Your task to perform on an android device: Show the shopping cart on walmart.com. Add panasonic triple a to the cart on walmart.com, then select checkout. Image 0: 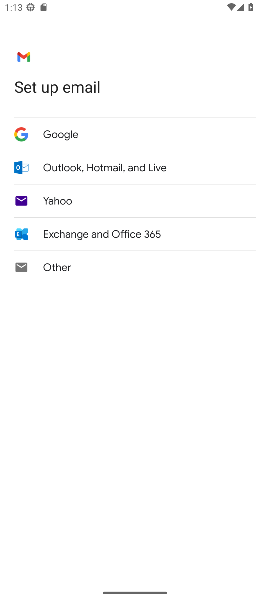
Step 0: press home button
Your task to perform on an android device: Show the shopping cart on walmart.com. Add panasonic triple a to the cart on walmart.com, then select checkout. Image 1: 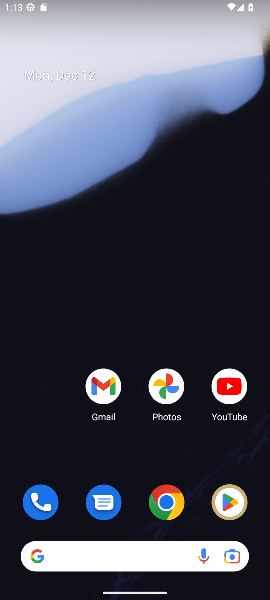
Step 1: click (179, 496)
Your task to perform on an android device: Show the shopping cart on walmart.com. Add panasonic triple a to the cart on walmart.com, then select checkout. Image 2: 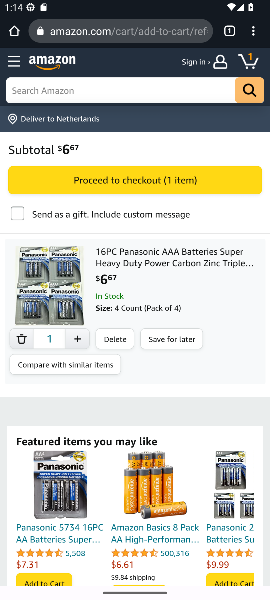
Step 2: click (129, 40)
Your task to perform on an android device: Show the shopping cart on walmart.com. Add panasonic triple a to the cart on walmart.com, then select checkout. Image 3: 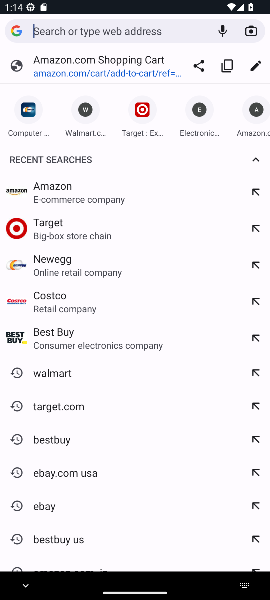
Step 3: click (85, 383)
Your task to perform on an android device: Show the shopping cart on walmart.com. Add panasonic triple a to the cart on walmart.com, then select checkout. Image 4: 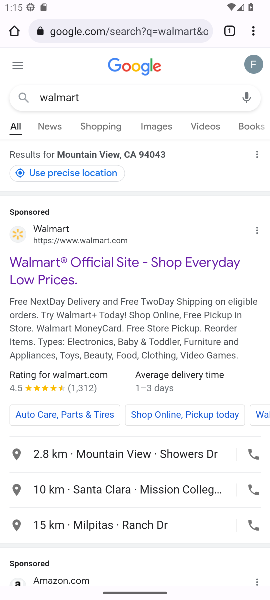
Step 4: click (72, 259)
Your task to perform on an android device: Show the shopping cart on walmart.com. Add panasonic triple a to the cart on walmart.com, then select checkout. Image 5: 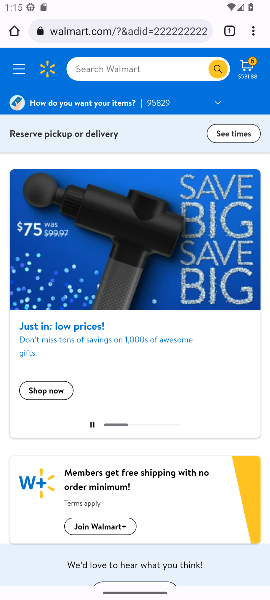
Step 5: click (118, 61)
Your task to perform on an android device: Show the shopping cart on walmart.com. Add panasonic triple a to the cart on walmart.com, then select checkout. Image 6: 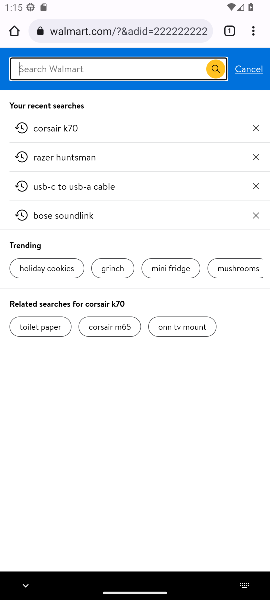
Step 6: type "panasonic triple a"
Your task to perform on an android device: Show the shopping cart on walmart.com. Add panasonic triple a to the cart on walmart.com, then select checkout. Image 7: 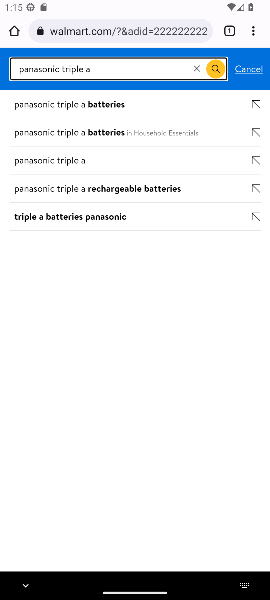
Step 7: click (217, 70)
Your task to perform on an android device: Show the shopping cart on walmart.com. Add panasonic triple a to the cart on walmart.com, then select checkout. Image 8: 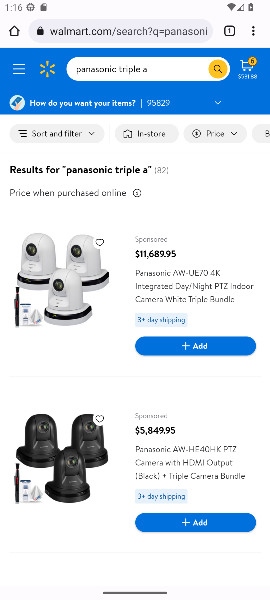
Step 8: click (148, 351)
Your task to perform on an android device: Show the shopping cart on walmart.com. Add panasonic triple a to the cart on walmart.com, then select checkout. Image 9: 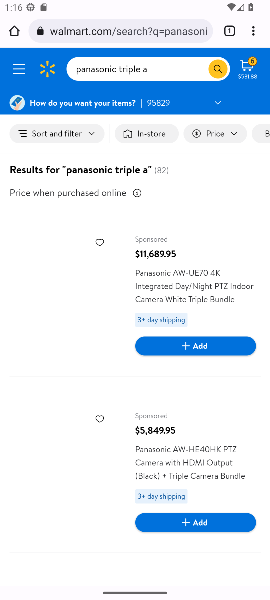
Step 9: task complete